Your task to perform on an android device: add a contact in the contacts app Image 0: 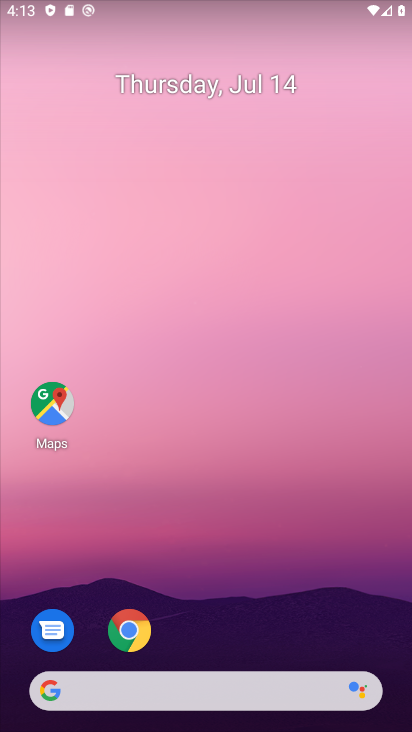
Step 0: click (113, 633)
Your task to perform on an android device: add a contact in the contacts app Image 1: 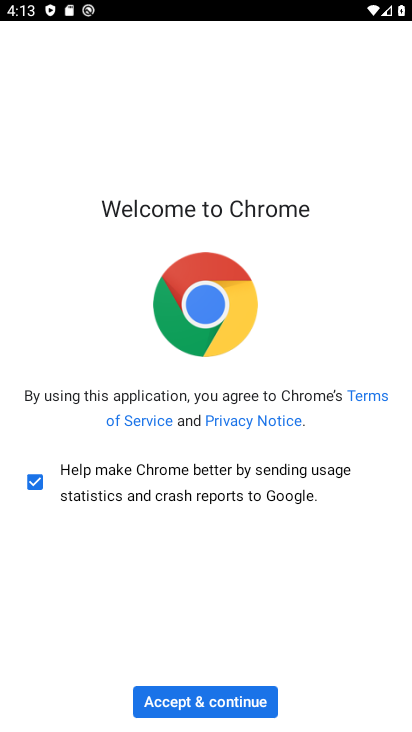
Step 1: press home button
Your task to perform on an android device: add a contact in the contacts app Image 2: 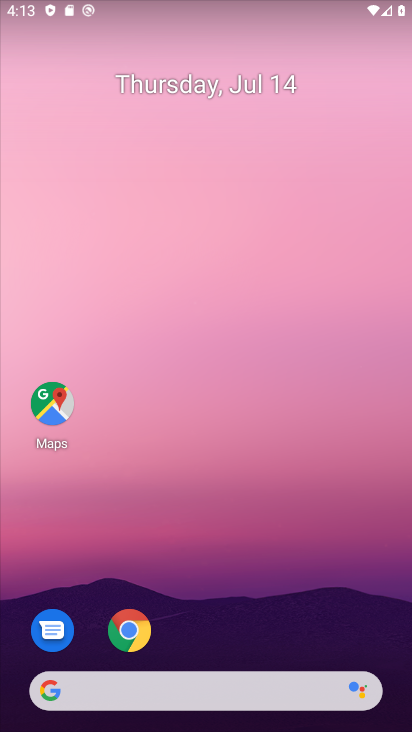
Step 2: drag from (278, 648) to (294, 116)
Your task to perform on an android device: add a contact in the contacts app Image 3: 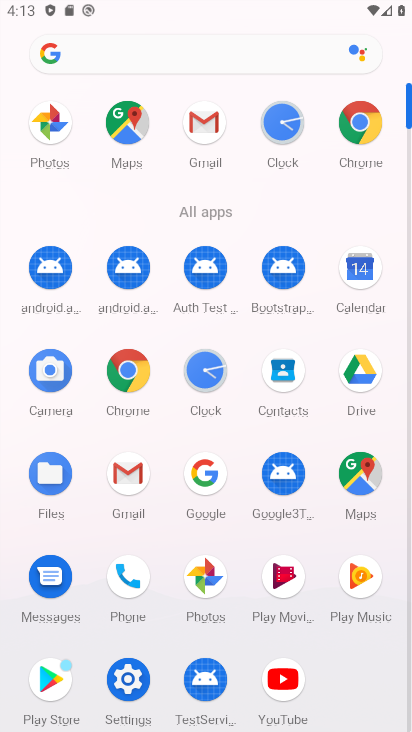
Step 3: click (280, 366)
Your task to perform on an android device: add a contact in the contacts app Image 4: 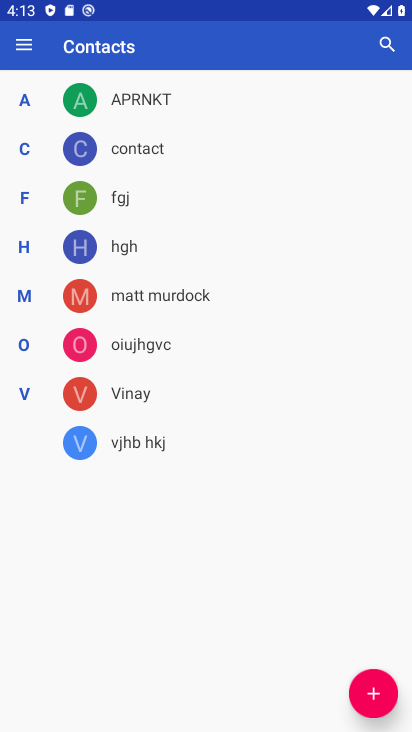
Step 4: click (280, 366)
Your task to perform on an android device: add a contact in the contacts app Image 5: 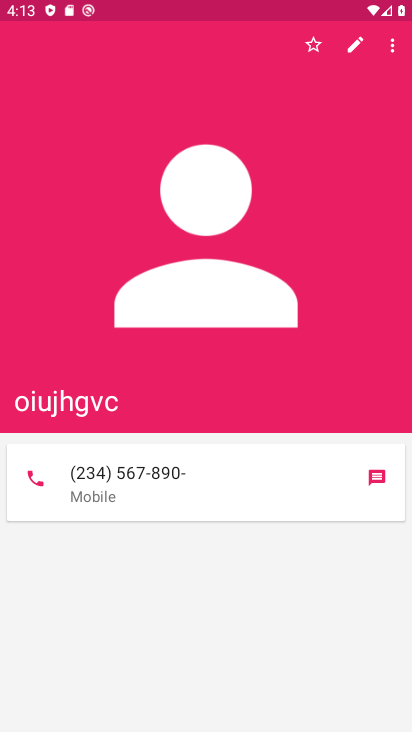
Step 5: press back button
Your task to perform on an android device: add a contact in the contacts app Image 6: 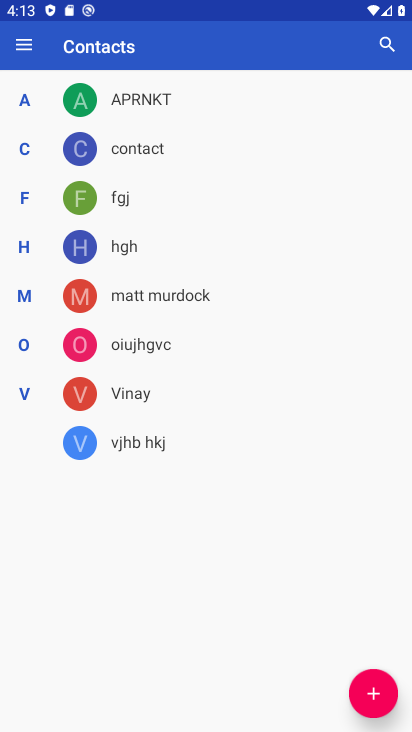
Step 6: click (375, 696)
Your task to perform on an android device: add a contact in the contacts app Image 7: 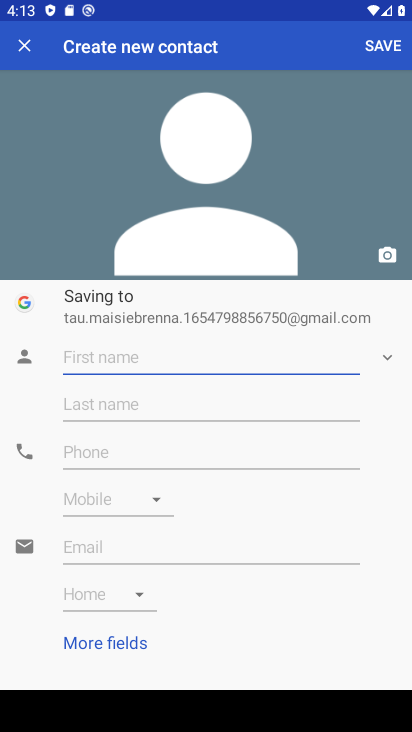
Step 7: type "masiee"
Your task to perform on an android device: add a contact in the contacts app Image 8: 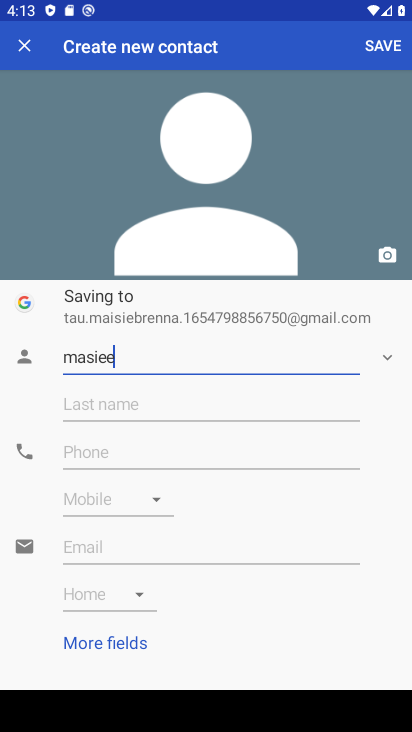
Step 8: click (77, 452)
Your task to perform on an android device: add a contact in the contacts app Image 9: 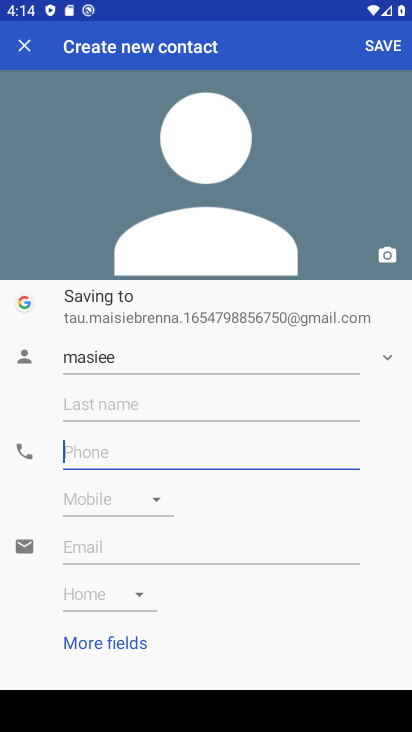
Step 9: type "23456789"
Your task to perform on an android device: add a contact in the contacts app Image 10: 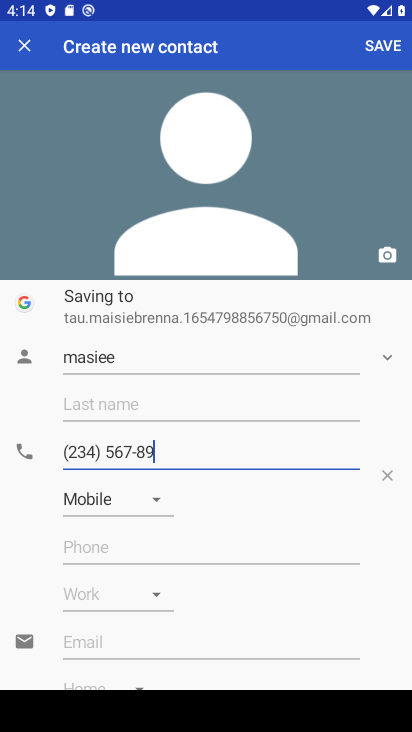
Step 10: click (373, 42)
Your task to perform on an android device: add a contact in the contacts app Image 11: 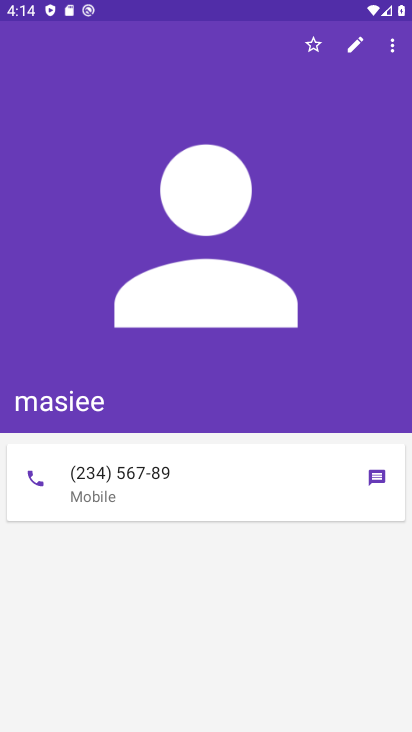
Step 11: task complete